Your task to perform on an android device: turn on javascript in the chrome app Image 0: 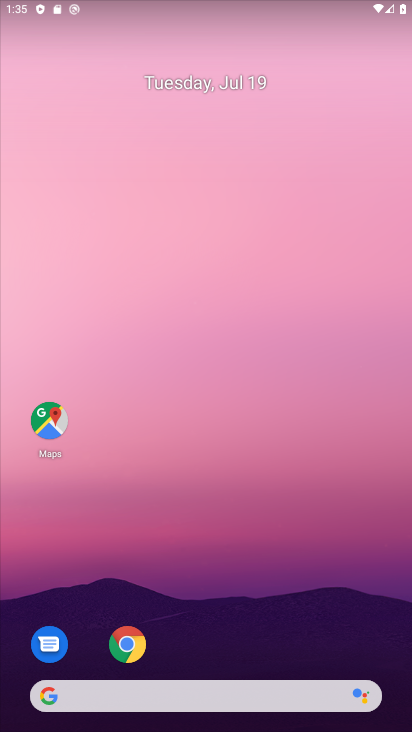
Step 0: drag from (182, 662) to (269, 44)
Your task to perform on an android device: turn on javascript in the chrome app Image 1: 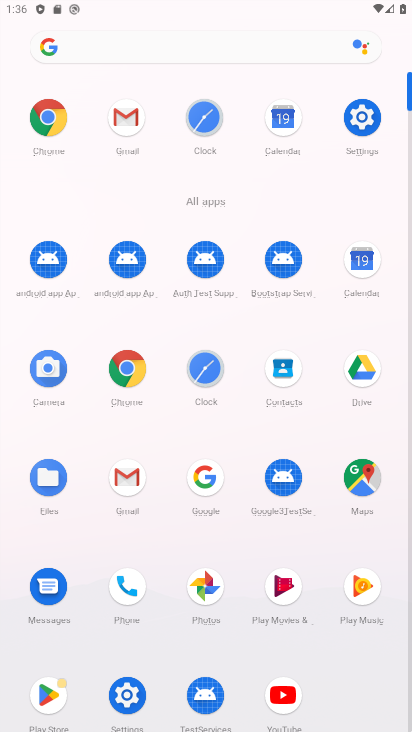
Step 1: click (127, 355)
Your task to perform on an android device: turn on javascript in the chrome app Image 2: 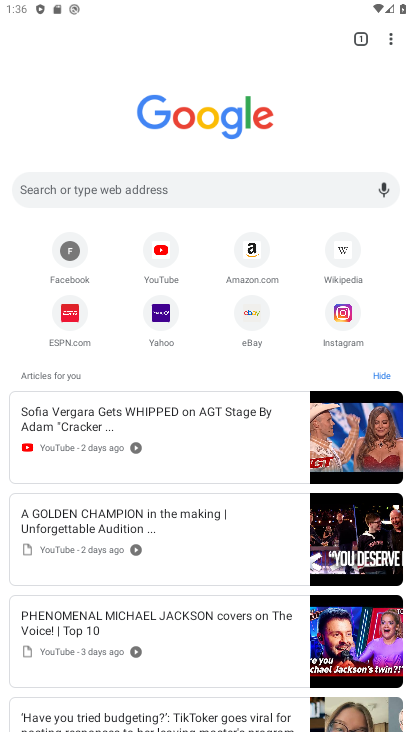
Step 2: click (383, 52)
Your task to perform on an android device: turn on javascript in the chrome app Image 3: 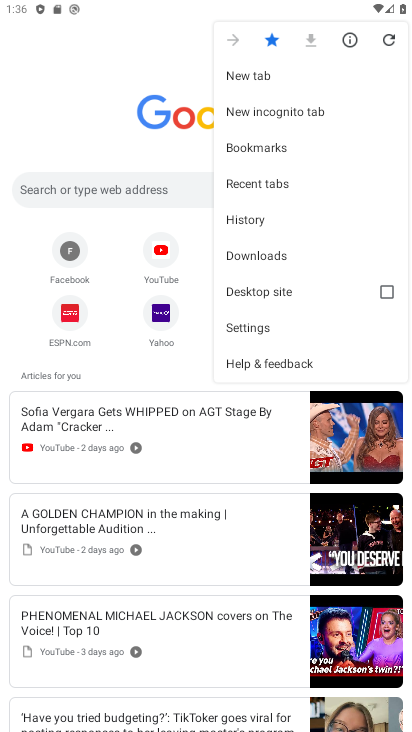
Step 3: click (260, 315)
Your task to perform on an android device: turn on javascript in the chrome app Image 4: 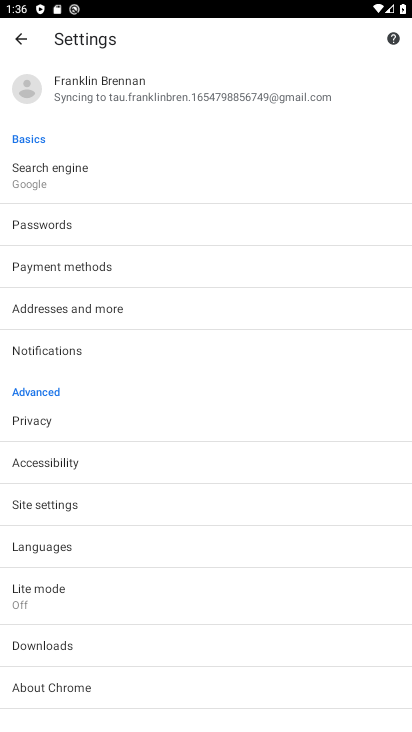
Step 4: click (48, 508)
Your task to perform on an android device: turn on javascript in the chrome app Image 5: 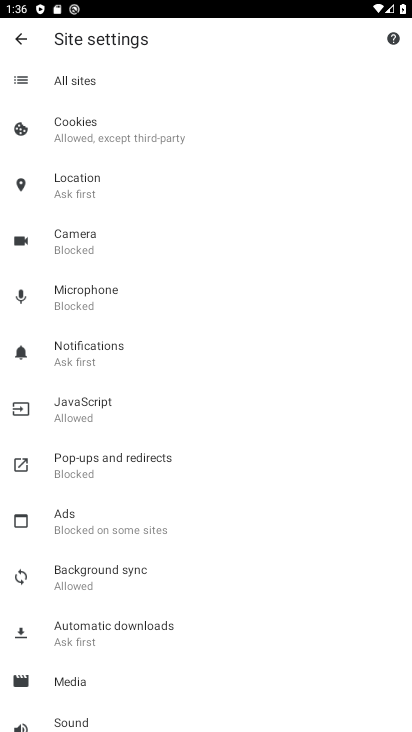
Step 5: click (102, 420)
Your task to perform on an android device: turn on javascript in the chrome app Image 6: 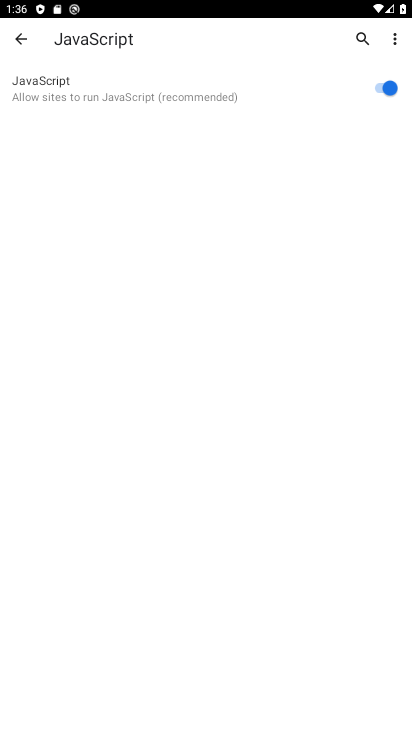
Step 6: task complete